Your task to perform on an android device: Turn on the flashlight Image 0: 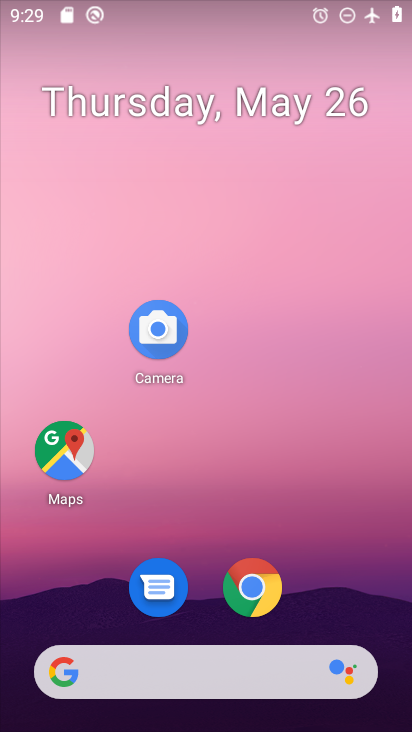
Step 0: drag from (201, 621) to (208, 214)
Your task to perform on an android device: Turn on the flashlight Image 1: 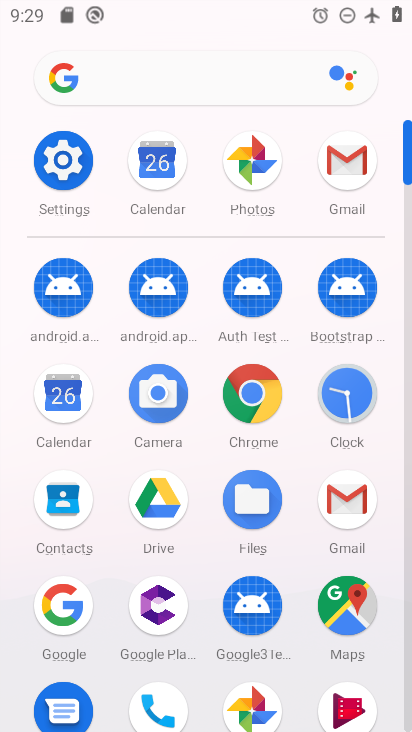
Step 1: click (39, 164)
Your task to perform on an android device: Turn on the flashlight Image 2: 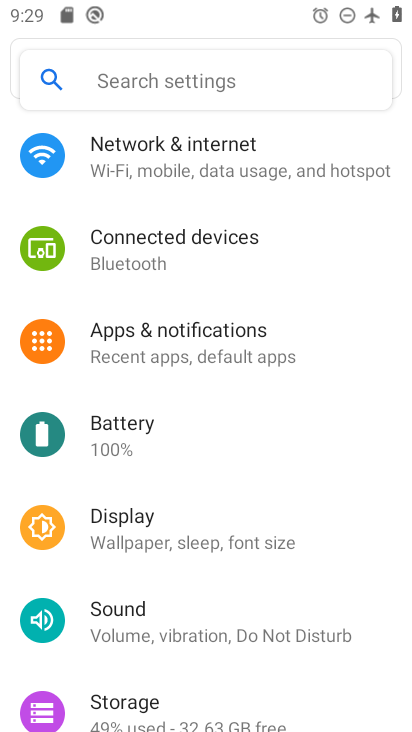
Step 2: task complete